Your task to perform on an android device: show emergency info Image 0: 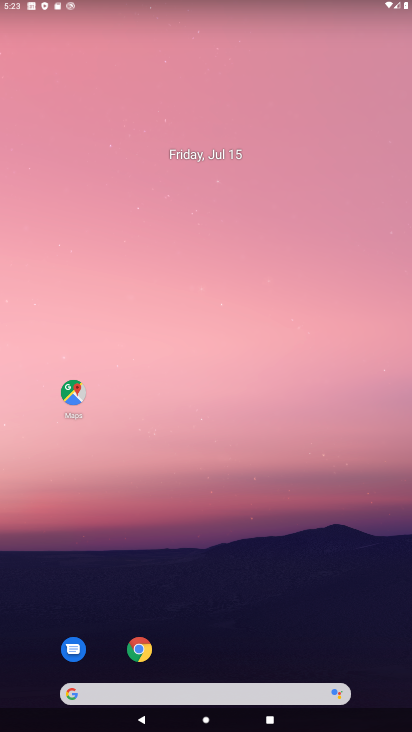
Step 0: drag from (197, 694) to (271, 4)
Your task to perform on an android device: show emergency info Image 1: 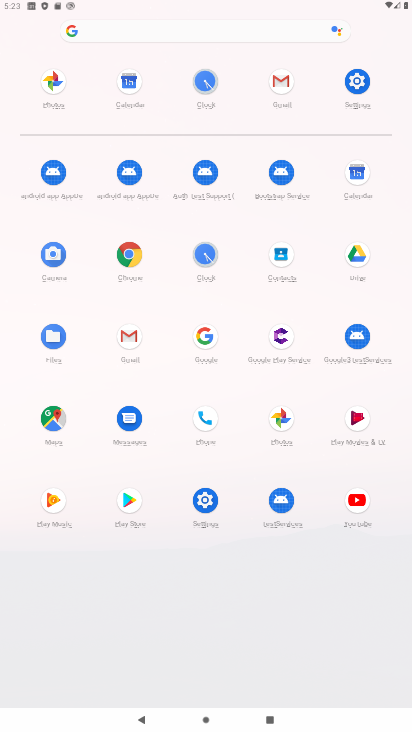
Step 1: click (358, 77)
Your task to perform on an android device: show emergency info Image 2: 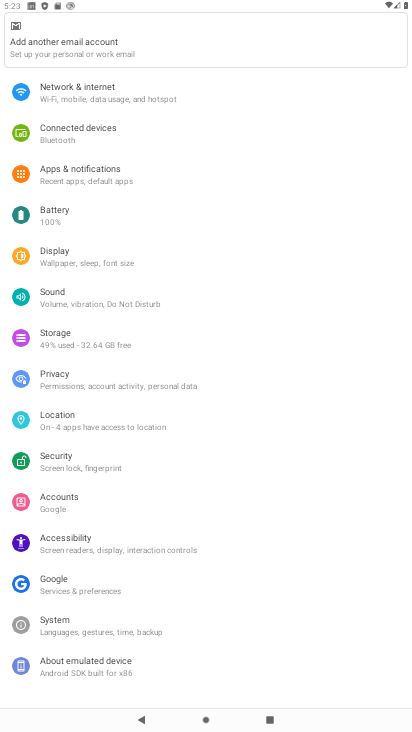
Step 2: drag from (97, 465) to (125, 381)
Your task to perform on an android device: show emergency info Image 3: 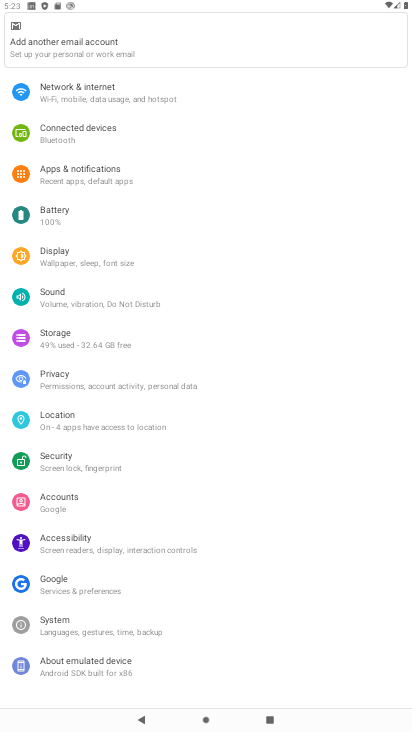
Step 3: click (84, 656)
Your task to perform on an android device: show emergency info Image 4: 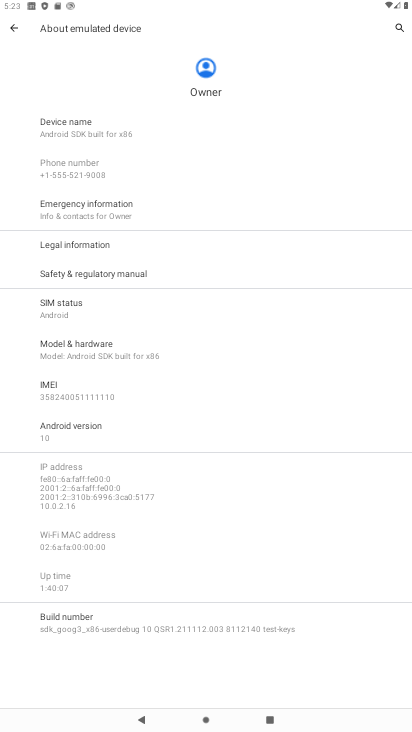
Step 4: click (107, 217)
Your task to perform on an android device: show emergency info Image 5: 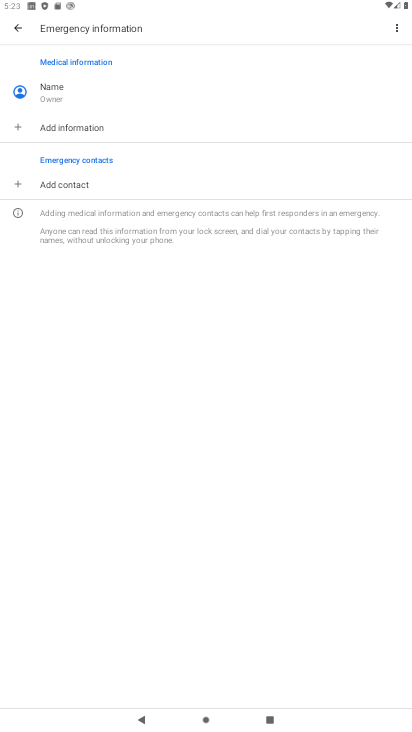
Step 5: task complete